Your task to perform on an android device: empty trash in google photos Image 0: 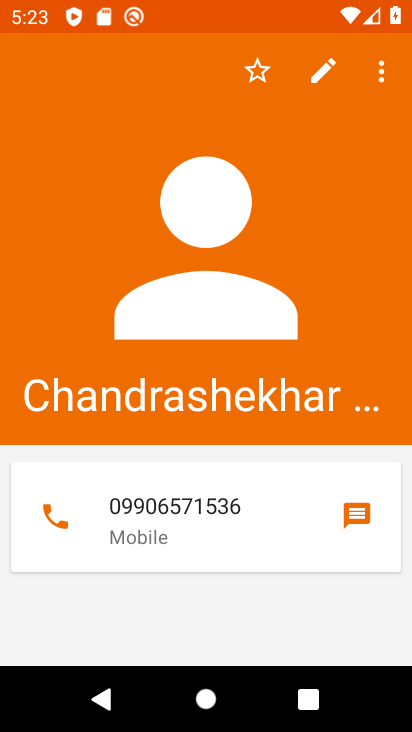
Step 0: press home button
Your task to perform on an android device: empty trash in google photos Image 1: 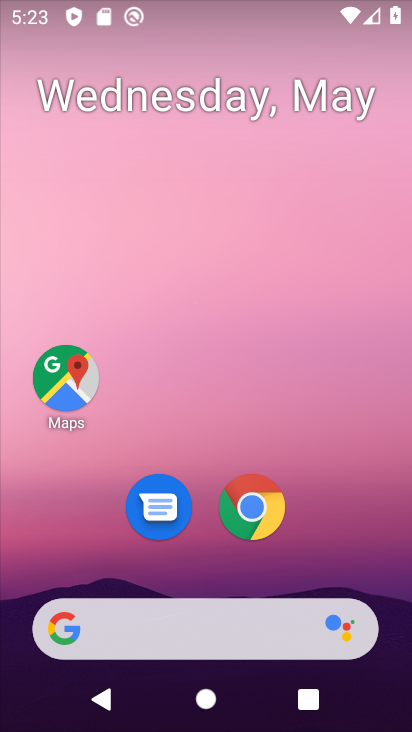
Step 1: drag from (376, 515) to (274, 34)
Your task to perform on an android device: empty trash in google photos Image 2: 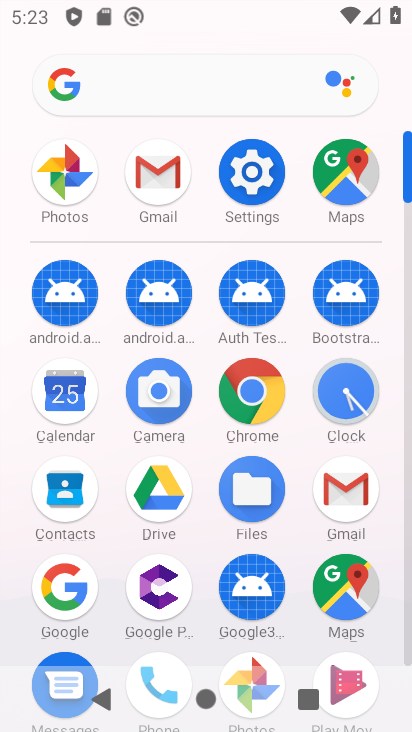
Step 2: click (64, 168)
Your task to perform on an android device: empty trash in google photos Image 3: 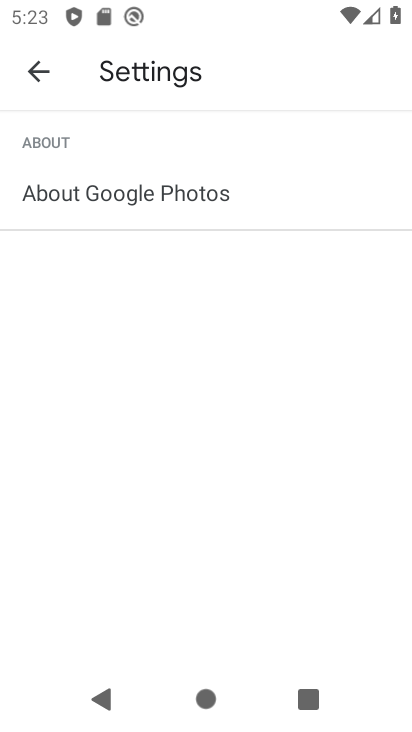
Step 3: click (39, 66)
Your task to perform on an android device: empty trash in google photos Image 4: 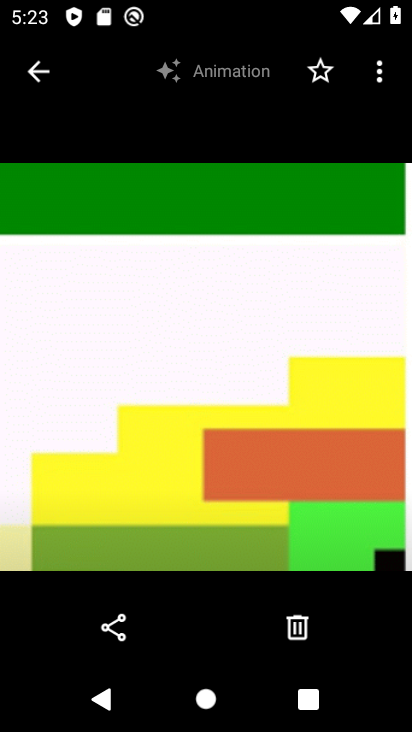
Step 4: click (39, 66)
Your task to perform on an android device: empty trash in google photos Image 5: 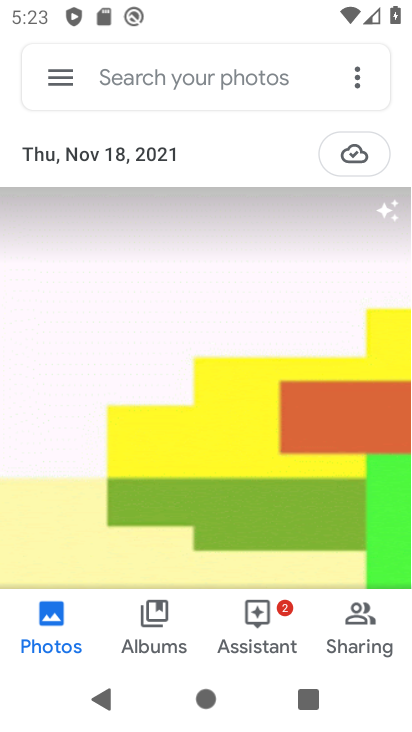
Step 5: click (53, 77)
Your task to perform on an android device: empty trash in google photos Image 6: 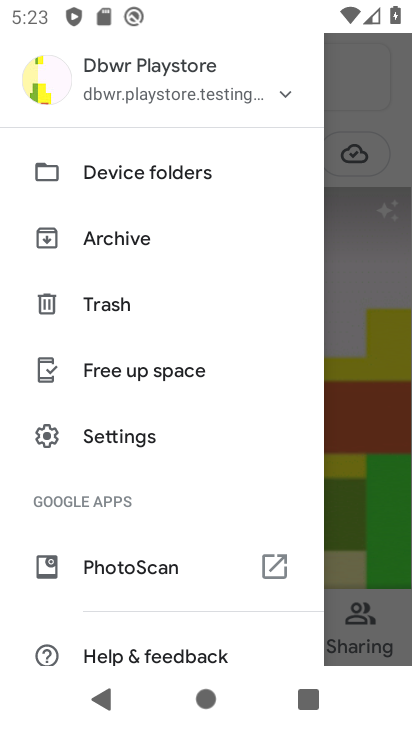
Step 6: click (97, 303)
Your task to perform on an android device: empty trash in google photos Image 7: 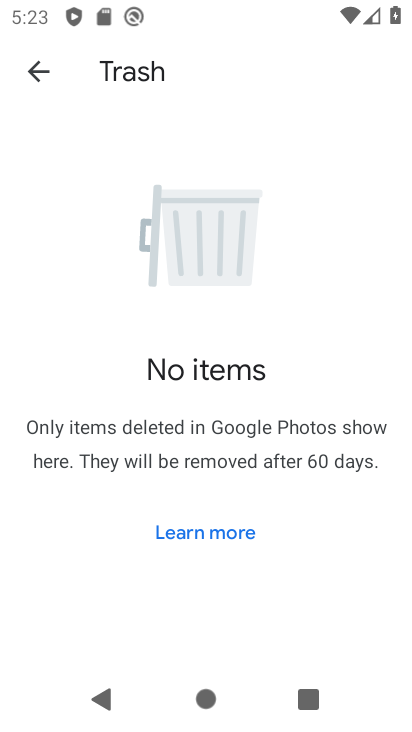
Step 7: task complete